Your task to perform on an android device: open app "Google News" Image 0: 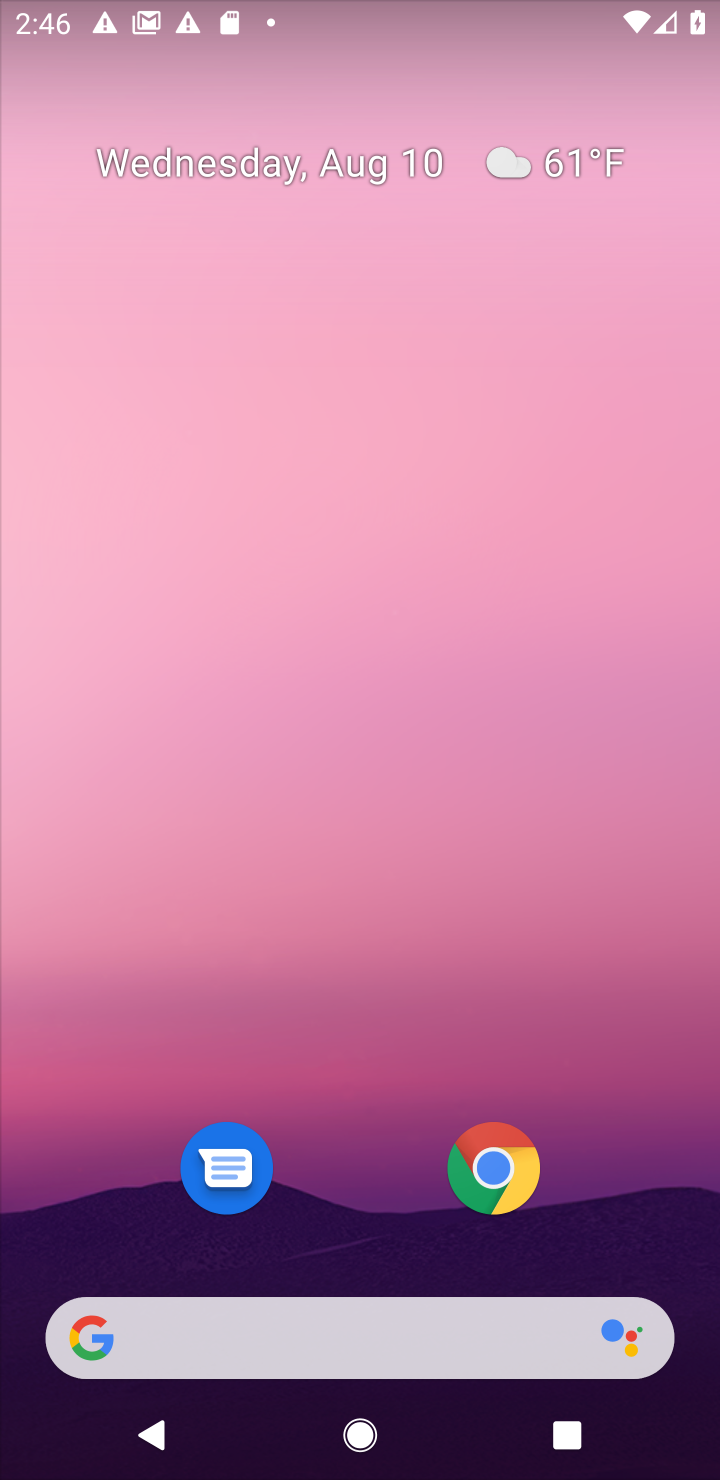
Step 0: drag from (348, 1239) to (357, 173)
Your task to perform on an android device: open app "Google News" Image 1: 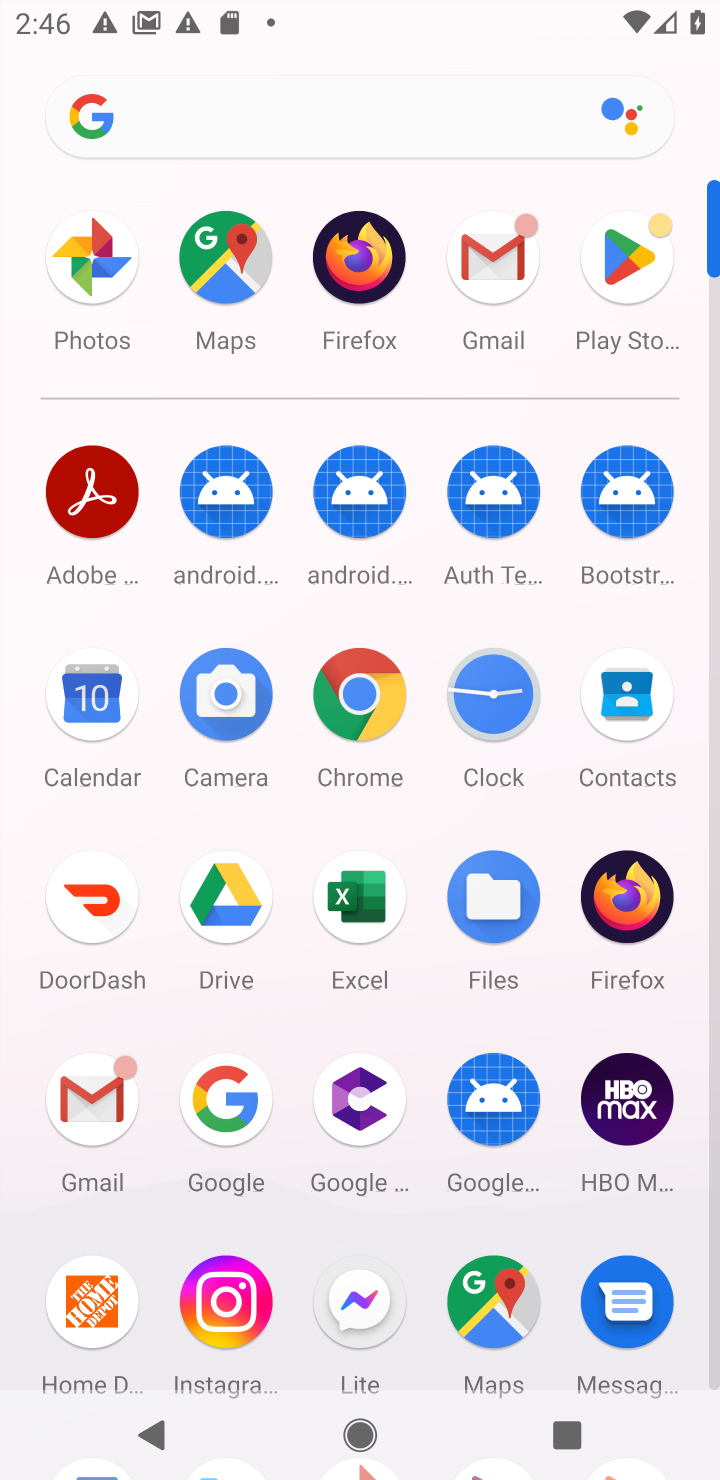
Step 1: click (627, 269)
Your task to perform on an android device: open app "Google News" Image 2: 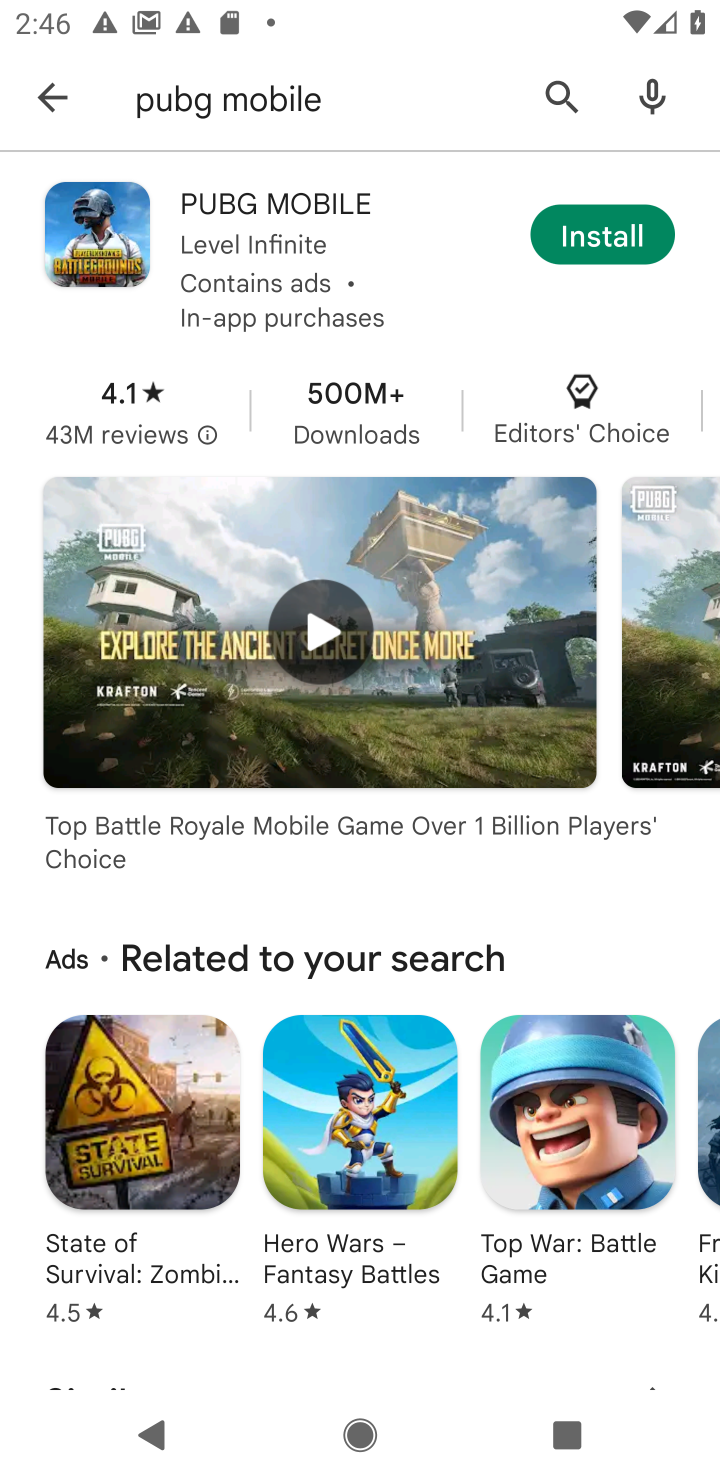
Step 2: press back button
Your task to perform on an android device: open app "Google News" Image 3: 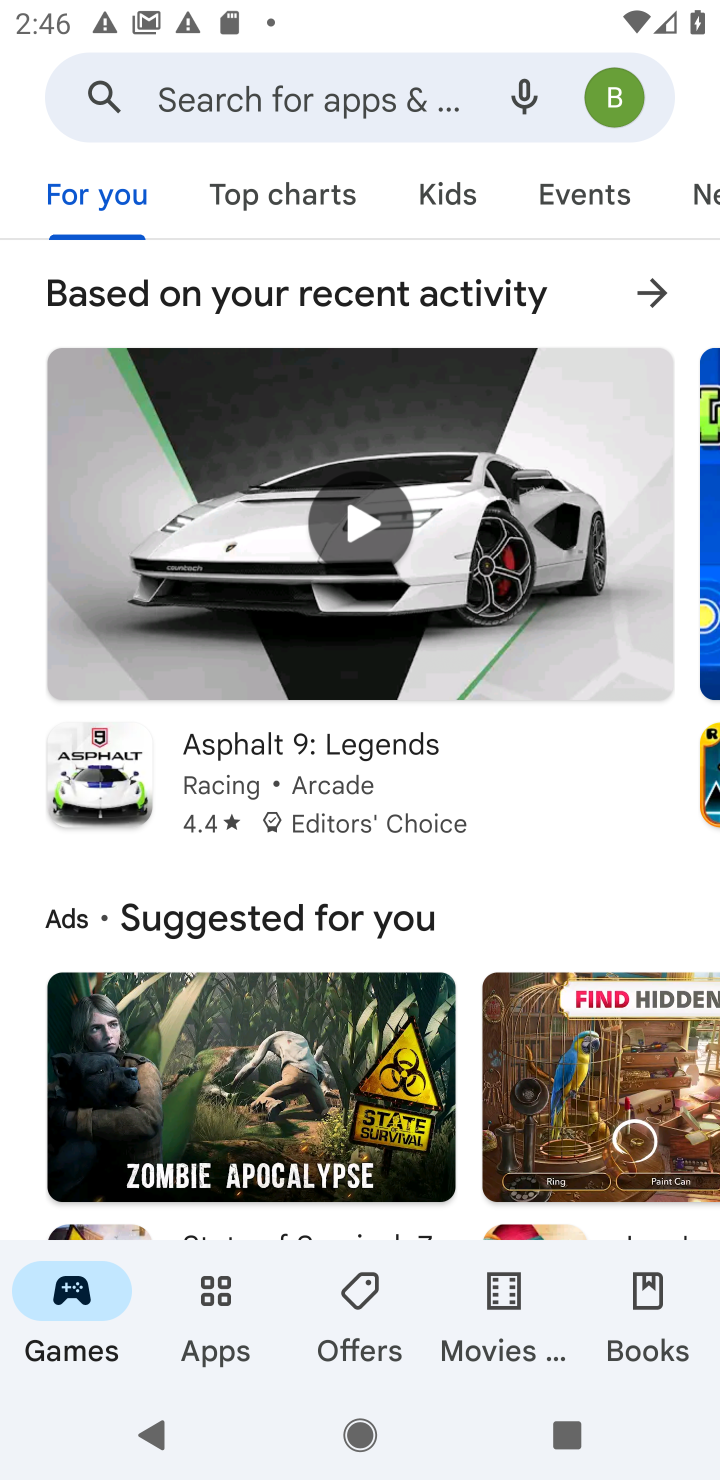
Step 3: click (206, 99)
Your task to perform on an android device: open app "Google News" Image 4: 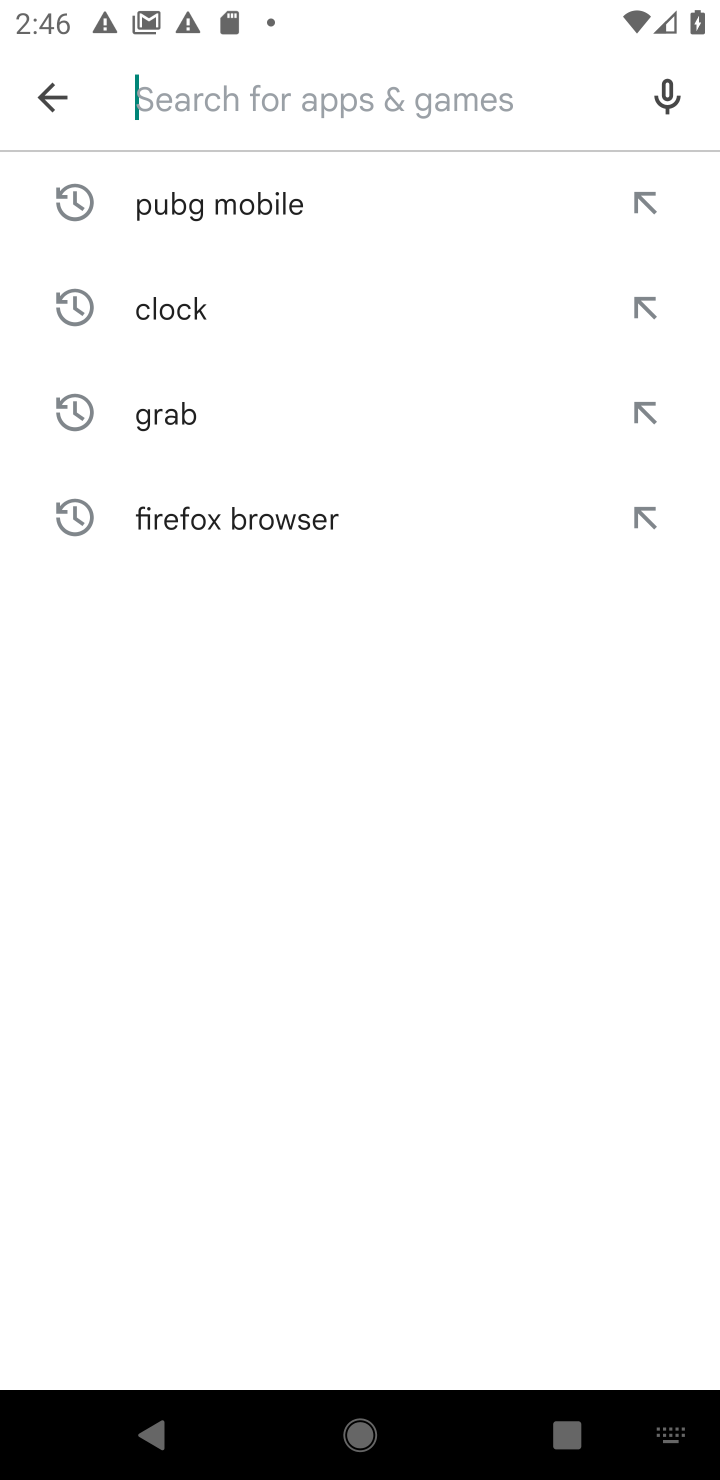
Step 4: type "Google News"
Your task to perform on an android device: open app "Google News" Image 5: 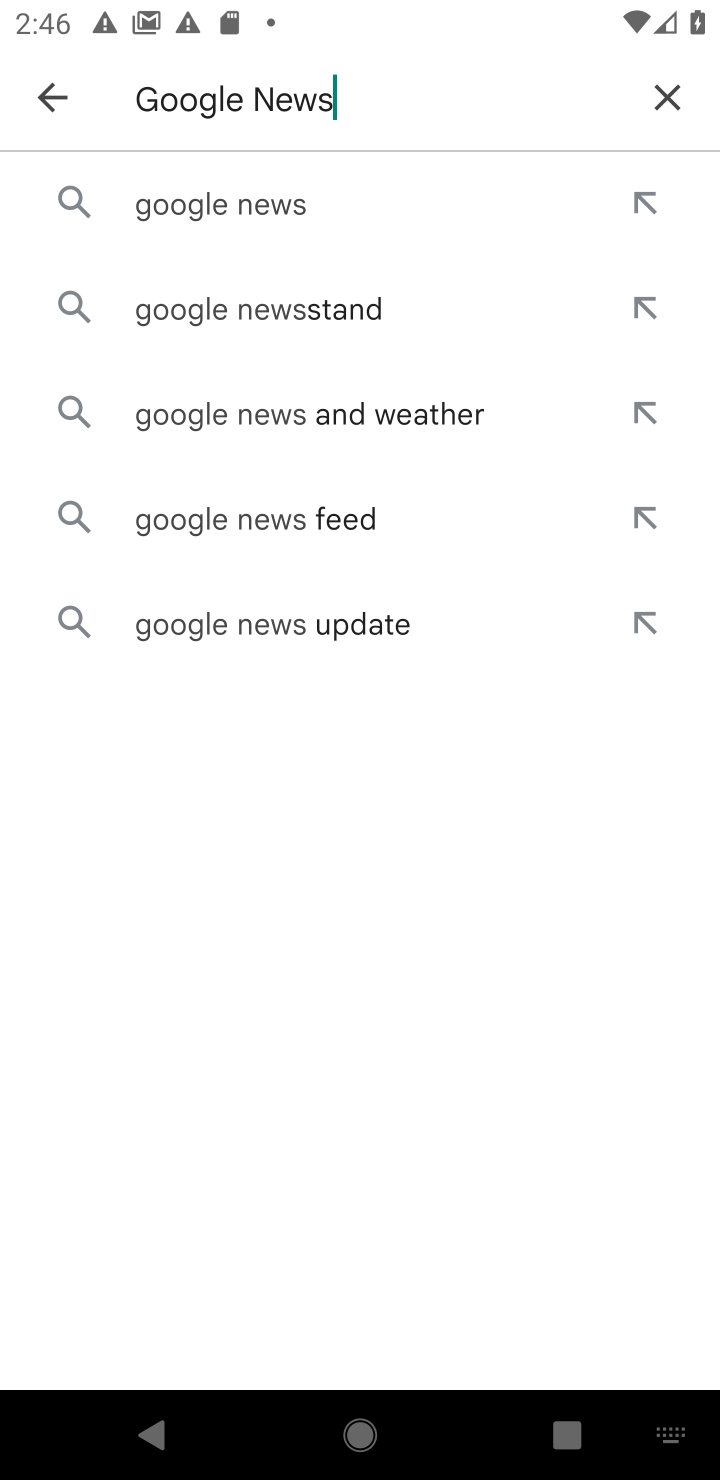
Step 5: click (266, 207)
Your task to perform on an android device: open app "Google News" Image 6: 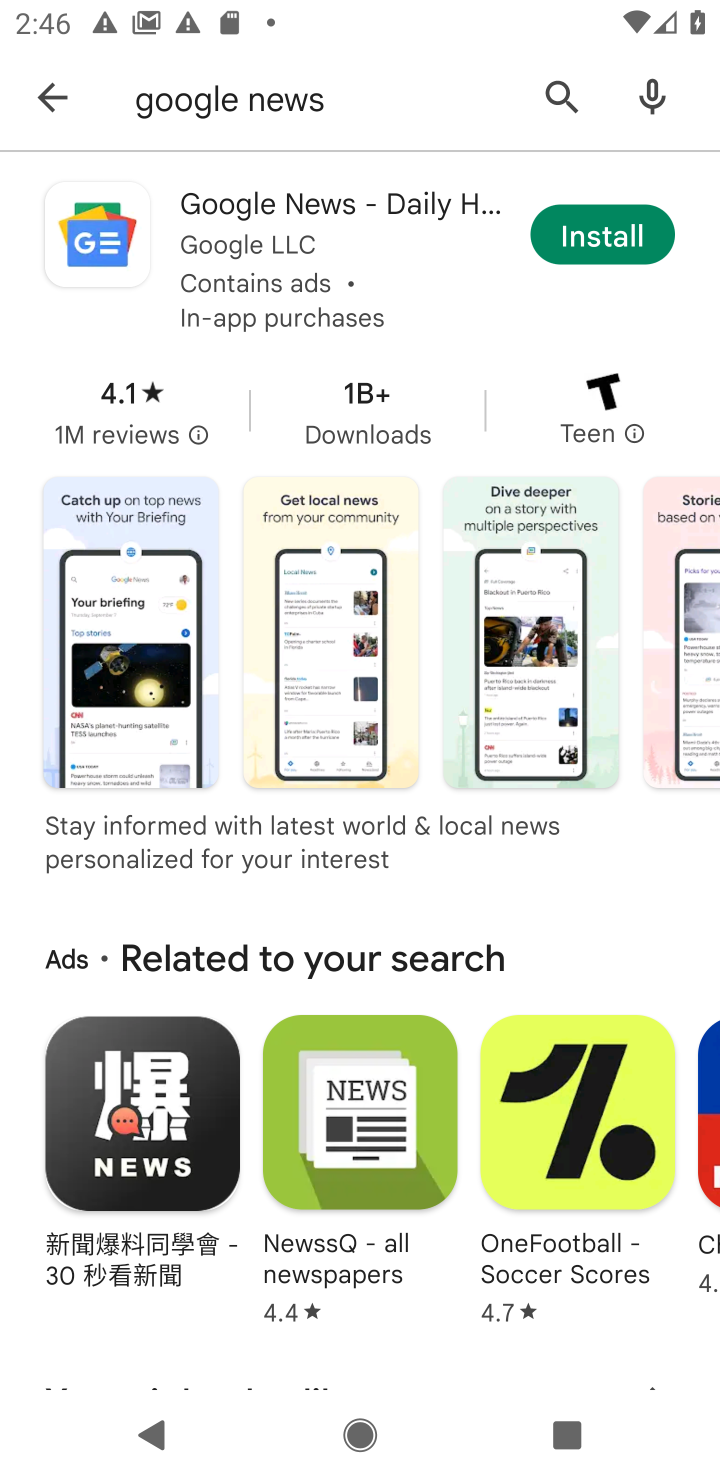
Step 6: task complete